Your task to perform on an android device: Open the stopwatch Image 0: 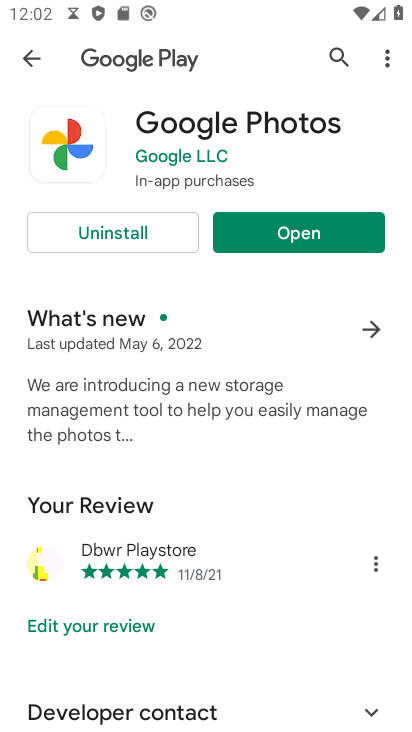
Step 0: press back button
Your task to perform on an android device: Open the stopwatch Image 1: 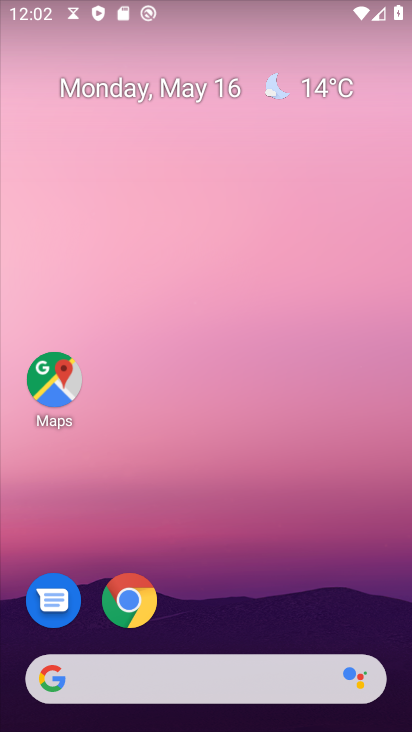
Step 1: drag from (259, 583) to (248, 46)
Your task to perform on an android device: Open the stopwatch Image 2: 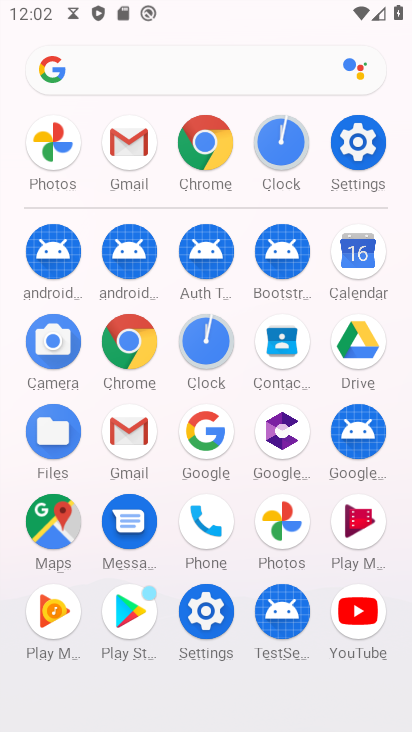
Step 2: drag from (14, 579) to (11, 280)
Your task to perform on an android device: Open the stopwatch Image 3: 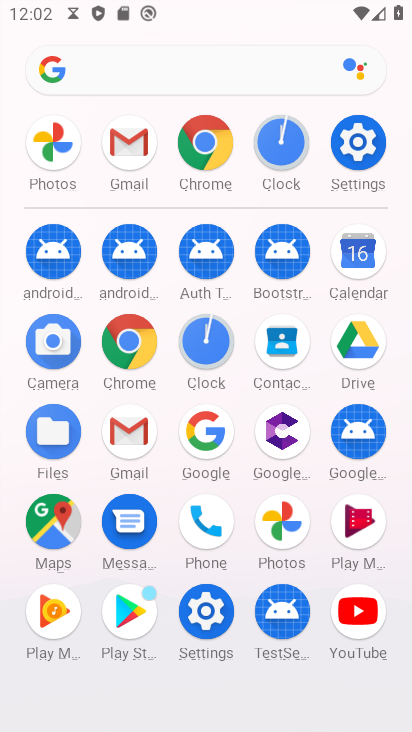
Step 3: click (202, 344)
Your task to perform on an android device: Open the stopwatch Image 4: 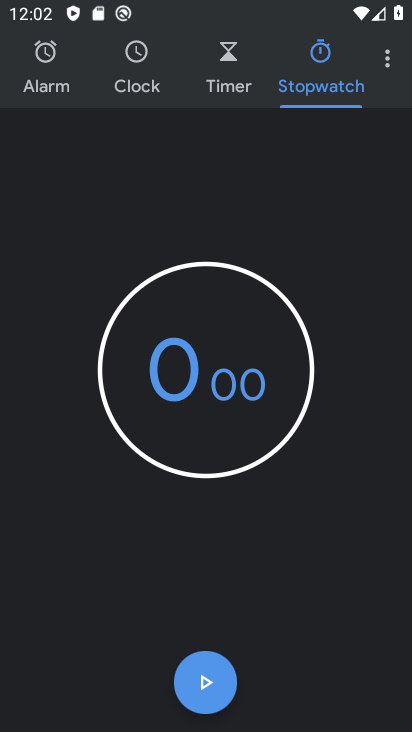
Step 4: task complete